Your task to perform on an android device: star an email in the gmail app Image 0: 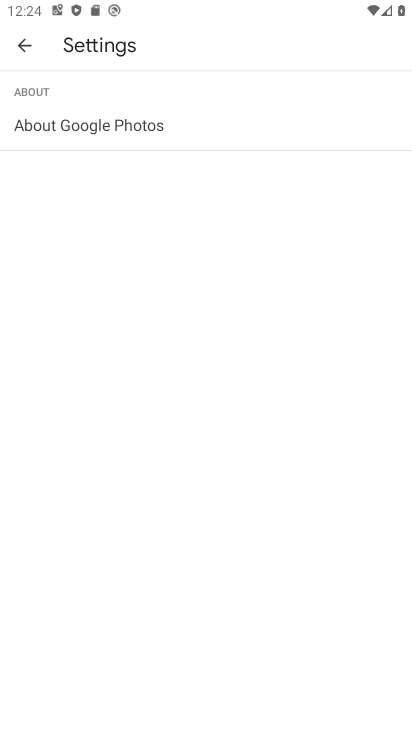
Step 0: press home button
Your task to perform on an android device: star an email in the gmail app Image 1: 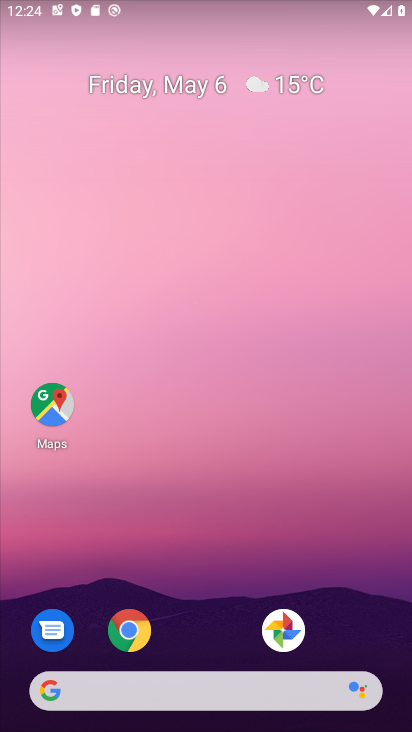
Step 1: drag from (231, 597) to (241, 15)
Your task to perform on an android device: star an email in the gmail app Image 2: 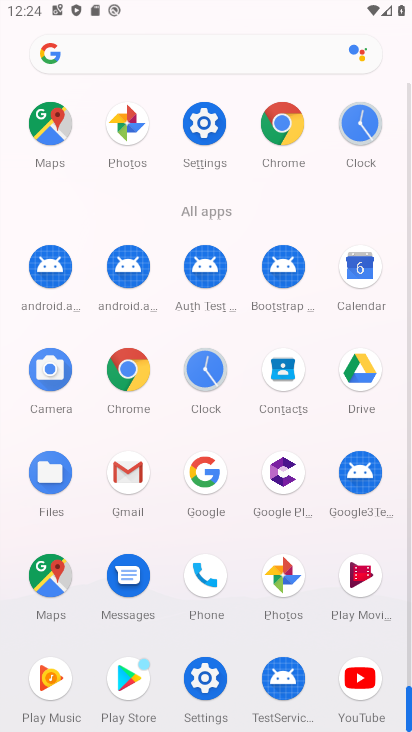
Step 2: click (132, 470)
Your task to perform on an android device: star an email in the gmail app Image 3: 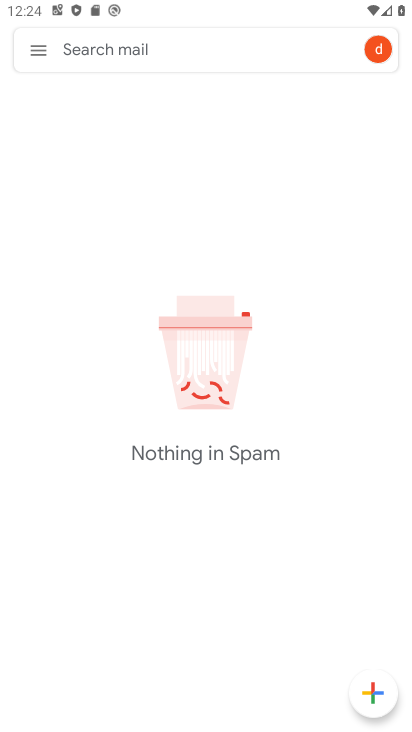
Step 3: click (40, 51)
Your task to perform on an android device: star an email in the gmail app Image 4: 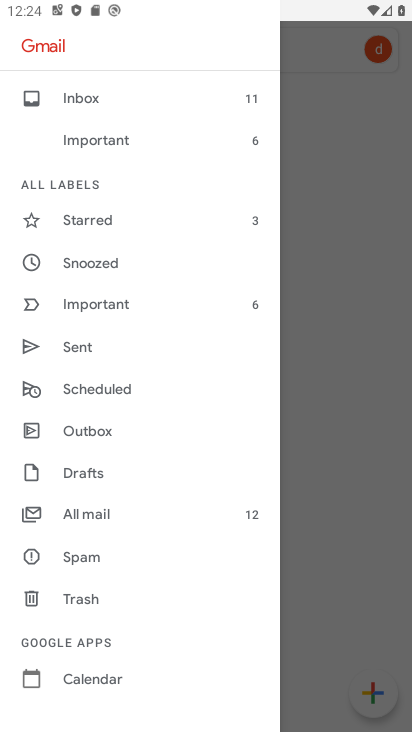
Step 4: click (98, 226)
Your task to perform on an android device: star an email in the gmail app Image 5: 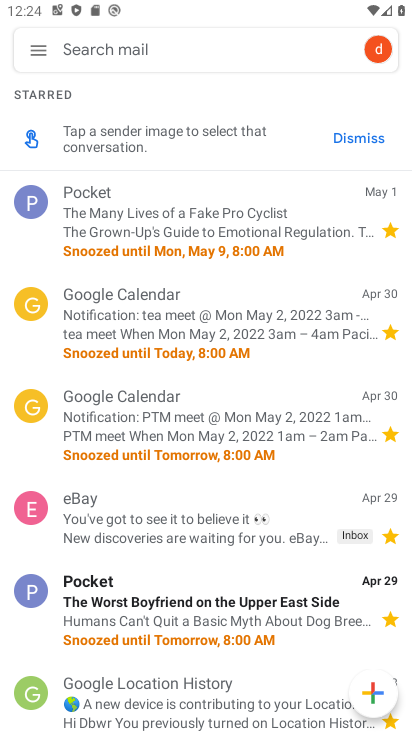
Step 5: task complete